Your task to perform on an android device: add a label to a message in the gmail app Image 0: 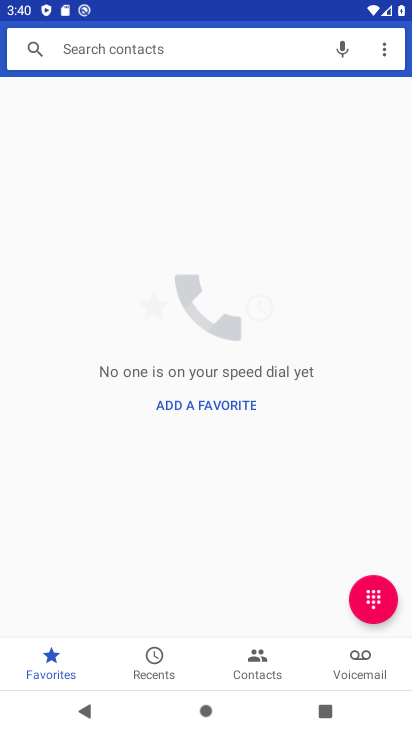
Step 0: press home button
Your task to perform on an android device: add a label to a message in the gmail app Image 1: 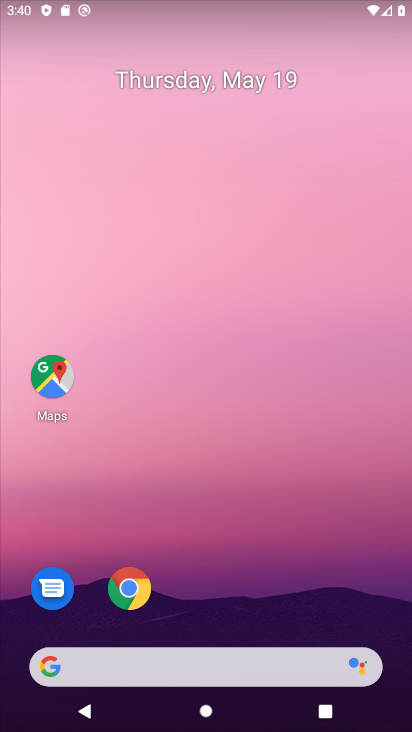
Step 1: drag from (247, 615) to (319, 91)
Your task to perform on an android device: add a label to a message in the gmail app Image 2: 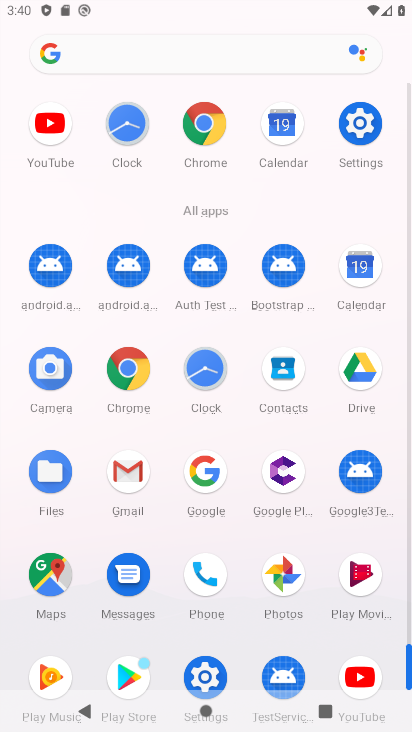
Step 2: click (132, 474)
Your task to perform on an android device: add a label to a message in the gmail app Image 3: 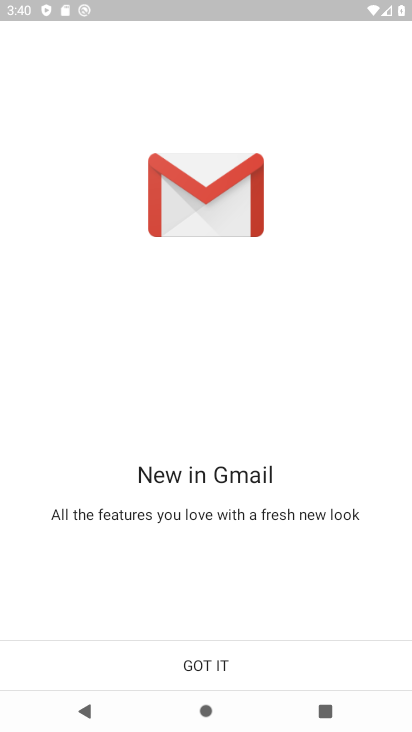
Step 3: click (228, 664)
Your task to perform on an android device: add a label to a message in the gmail app Image 4: 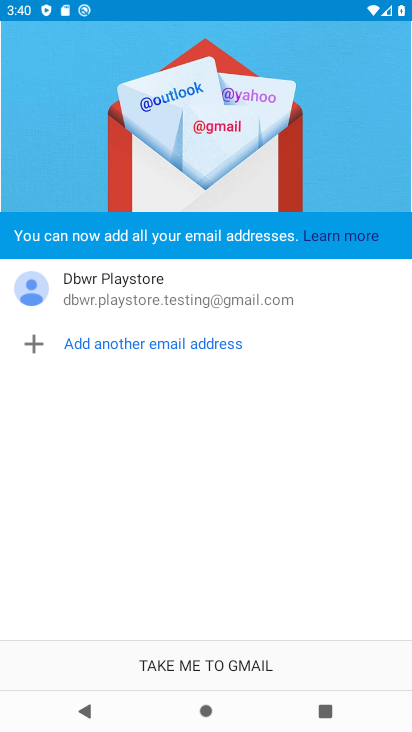
Step 4: click (225, 667)
Your task to perform on an android device: add a label to a message in the gmail app Image 5: 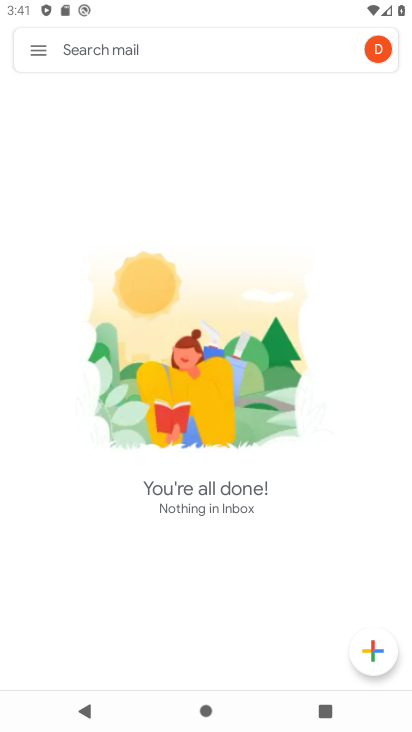
Step 5: click (36, 55)
Your task to perform on an android device: add a label to a message in the gmail app Image 6: 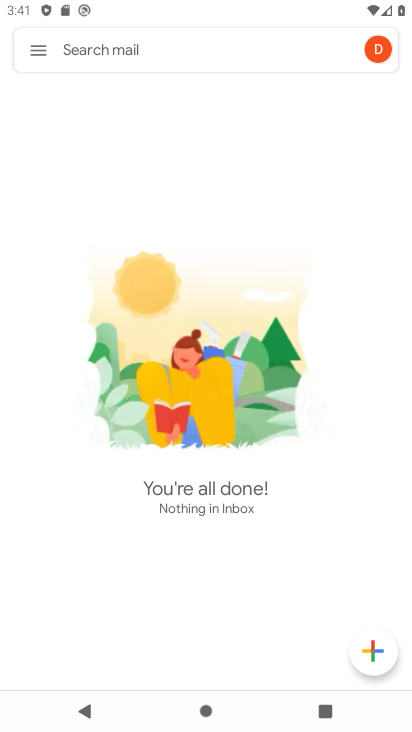
Step 6: click (35, 38)
Your task to perform on an android device: add a label to a message in the gmail app Image 7: 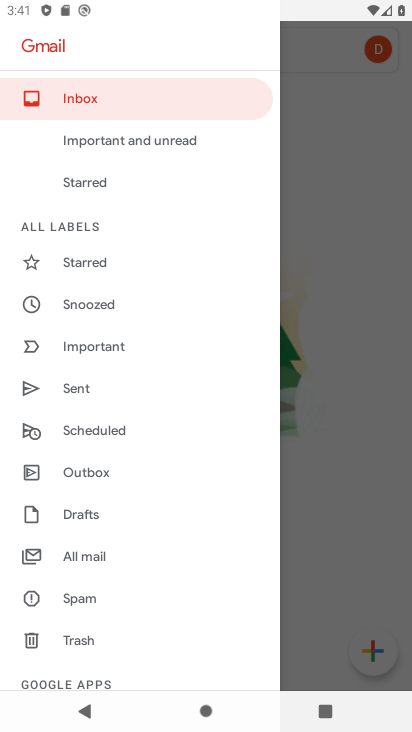
Step 7: click (93, 561)
Your task to perform on an android device: add a label to a message in the gmail app Image 8: 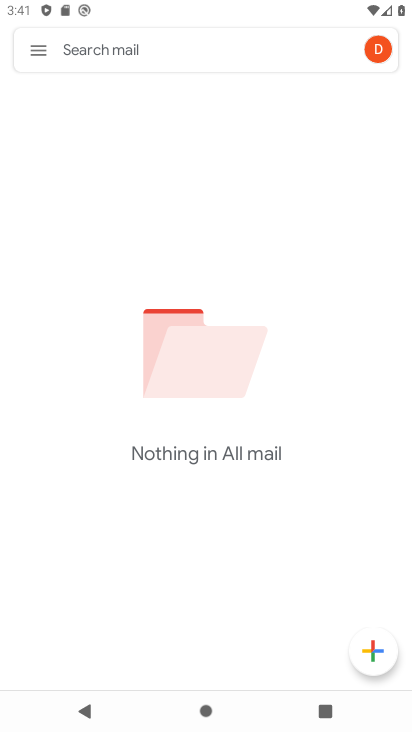
Step 8: task complete